Your task to perform on an android device: Is it going to rain tomorrow? Image 0: 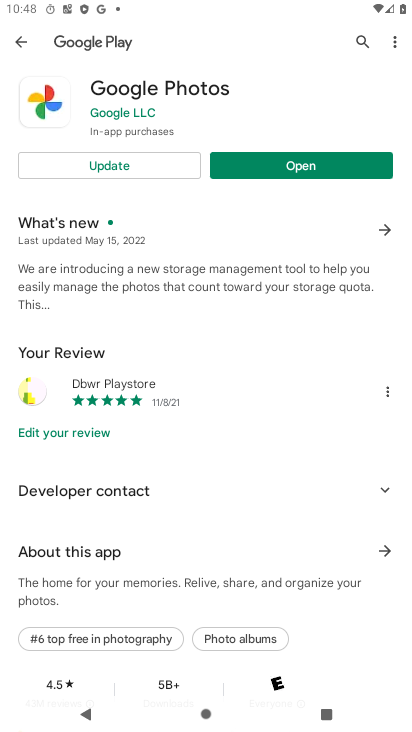
Step 0: press home button
Your task to perform on an android device: Is it going to rain tomorrow? Image 1: 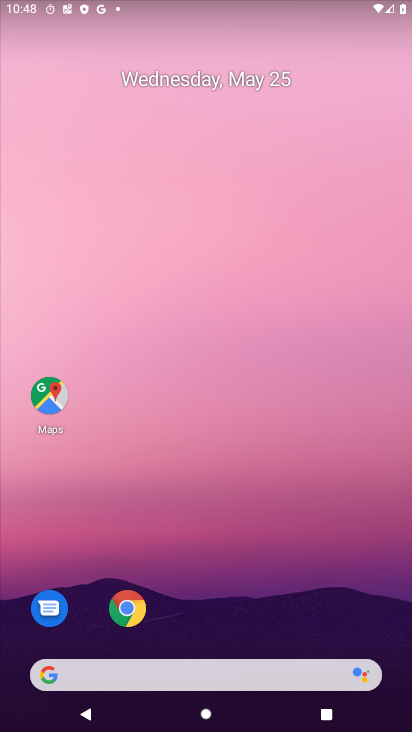
Step 1: click (86, 672)
Your task to perform on an android device: Is it going to rain tomorrow? Image 2: 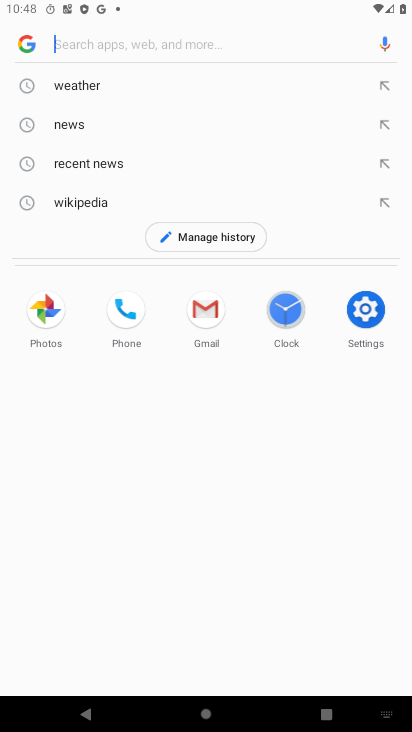
Step 2: click (68, 84)
Your task to perform on an android device: Is it going to rain tomorrow? Image 3: 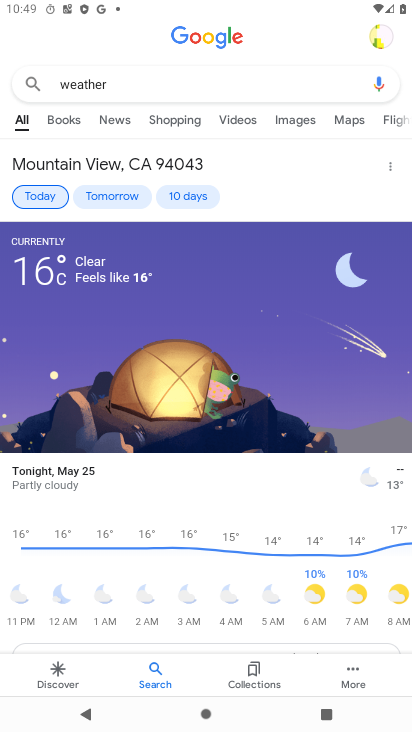
Step 3: click (109, 197)
Your task to perform on an android device: Is it going to rain tomorrow? Image 4: 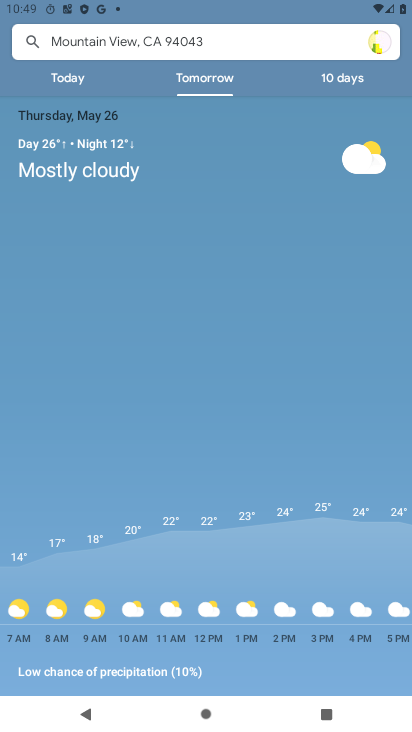
Step 4: task complete